Your task to perform on an android device: turn on airplane mode Image 0: 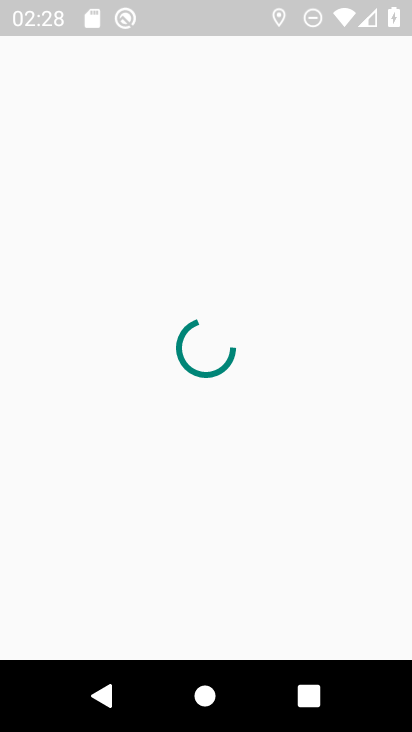
Step 0: press home button
Your task to perform on an android device: turn on airplane mode Image 1: 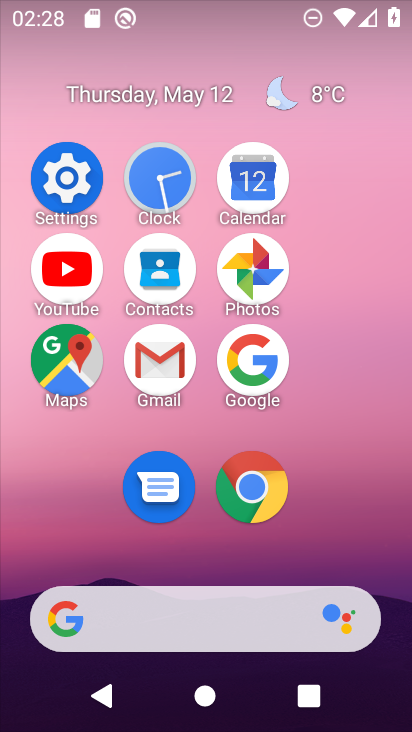
Step 1: click (79, 183)
Your task to perform on an android device: turn on airplane mode Image 2: 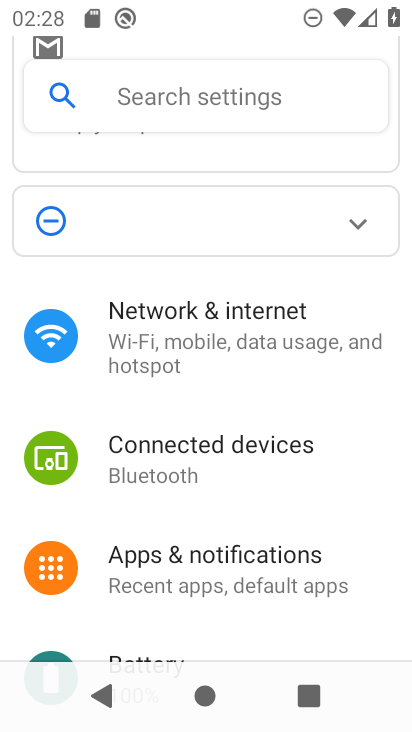
Step 2: click (228, 320)
Your task to perform on an android device: turn on airplane mode Image 3: 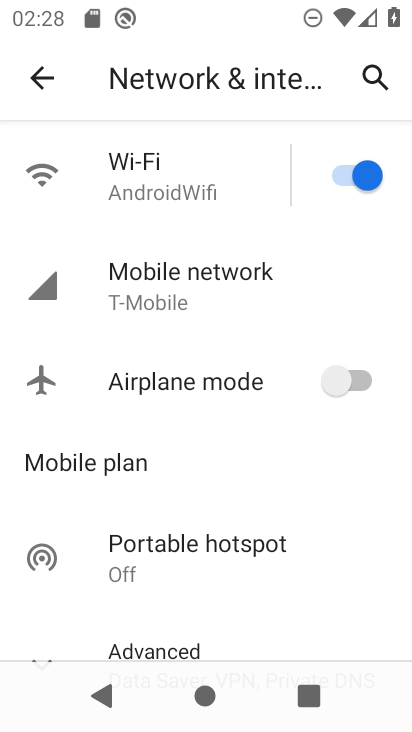
Step 3: click (368, 382)
Your task to perform on an android device: turn on airplane mode Image 4: 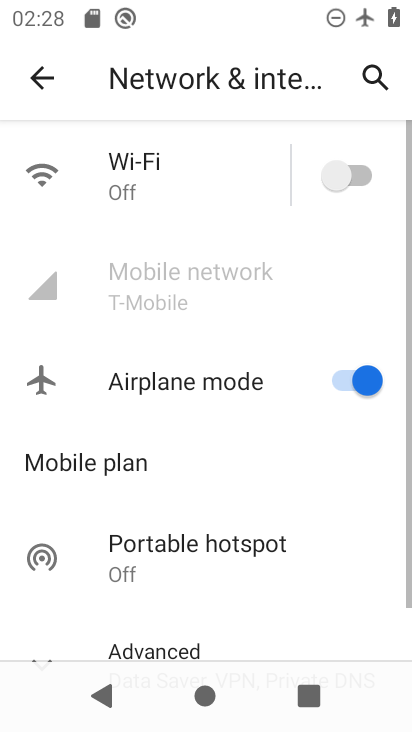
Step 4: task complete